Your task to perform on an android device: Go to Google maps Image 0: 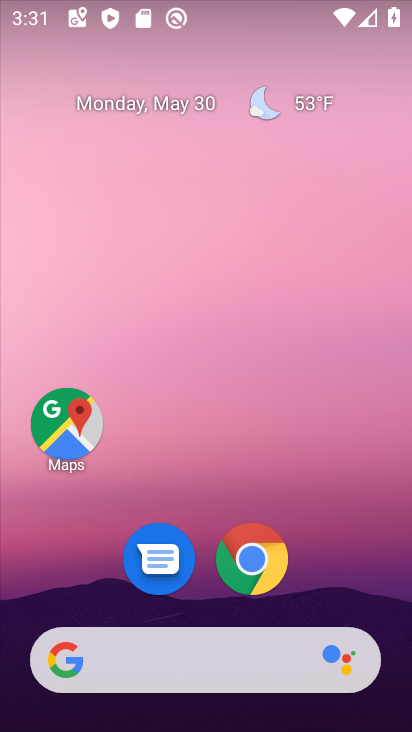
Step 0: drag from (224, 702) to (203, 6)
Your task to perform on an android device: Go to Google maps Image 1: 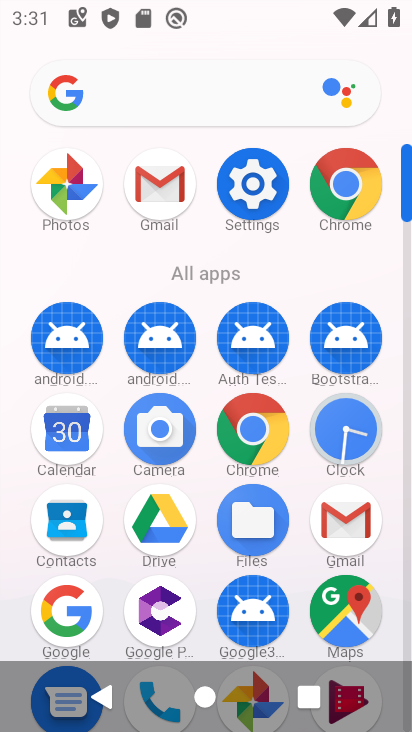
Step 1: click (349, 598)
Your task to perform on an android device: Go to Google maps Image 2: 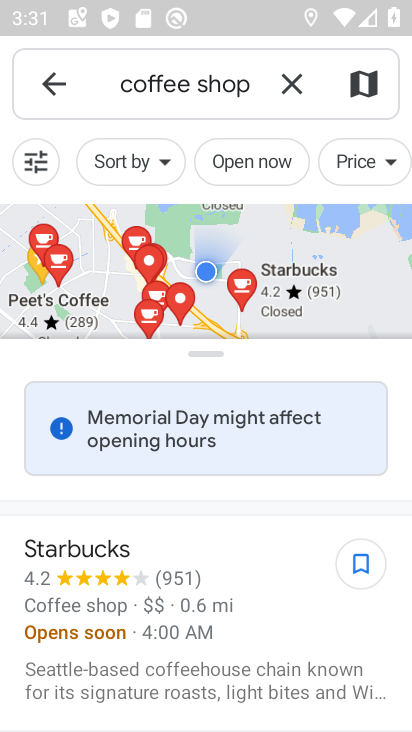
Step 2: task complete